Your task to perform on an android device: Search for lg ultragear on bestbuy, select the first entry, and add it to the cart. Image 0: 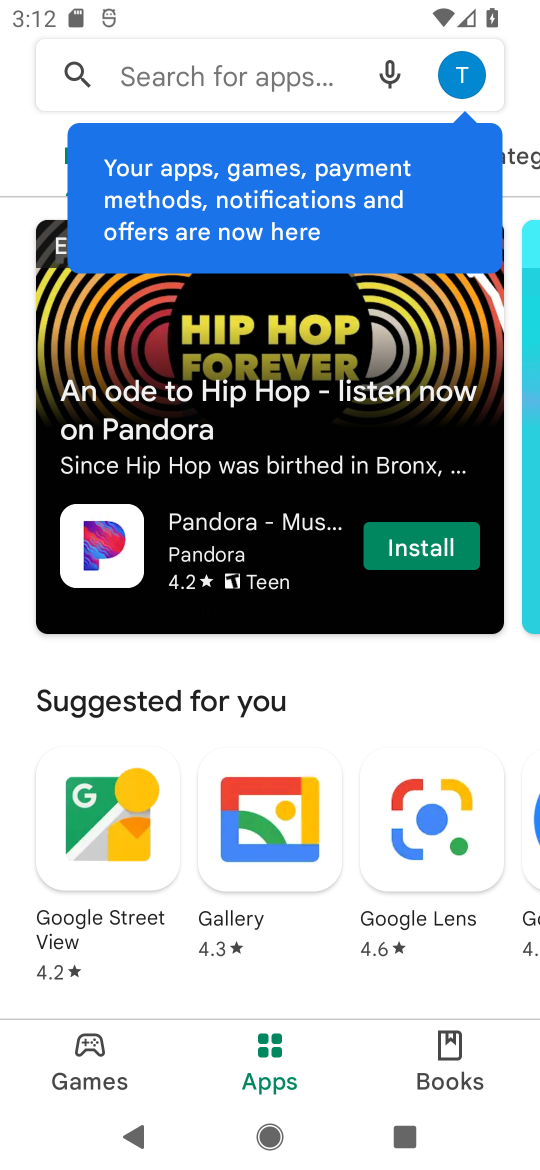
Step 0: press home button
Your task to perform on an android device: Search for lg ultragear on bestbuy, select the first entry, and add it to the cart. Image 1: 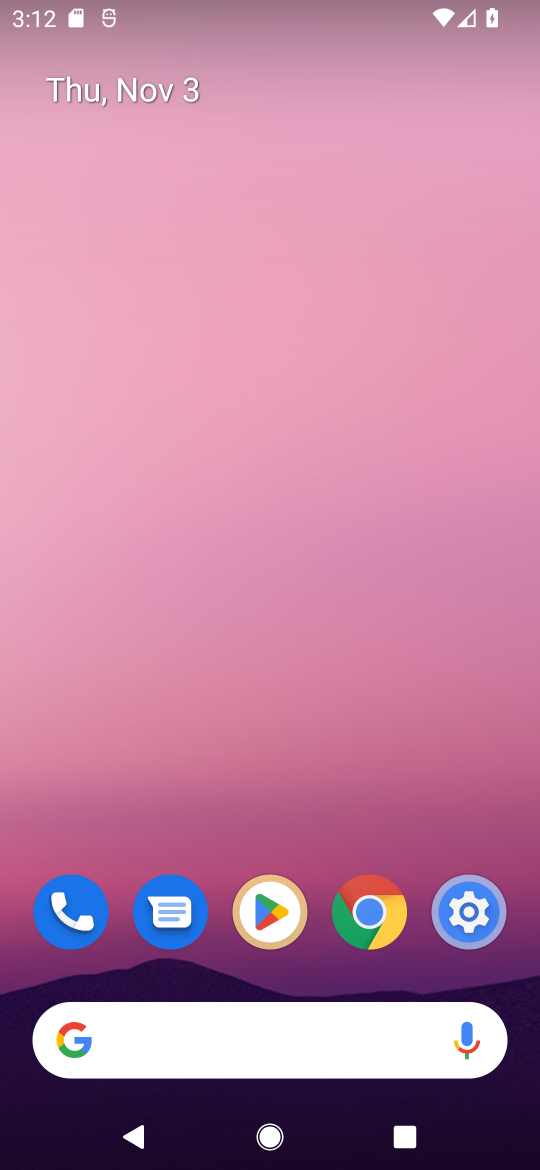
Step 1: click (367, 905)
Your task to perform on an android device: Search for lg ultragear on bestbuy, select the first entry, and add it to the cart. Image 2: 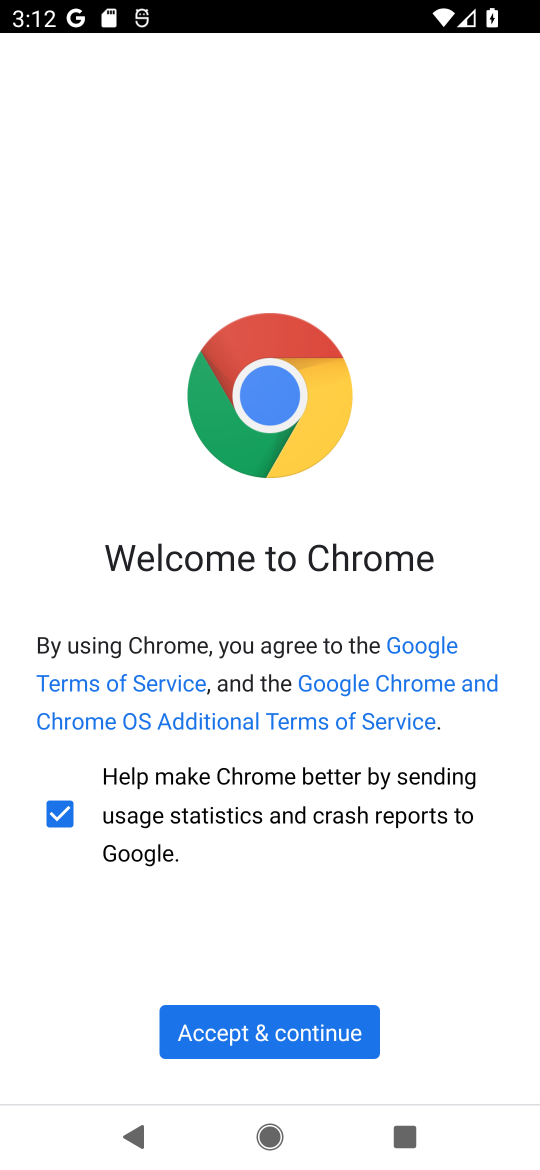
Step 2: click (273, 1028)
Your task to perform on an android device: Search for lg ultragear on bestbuy, select the first entry, and add it to the cart. Image 3: 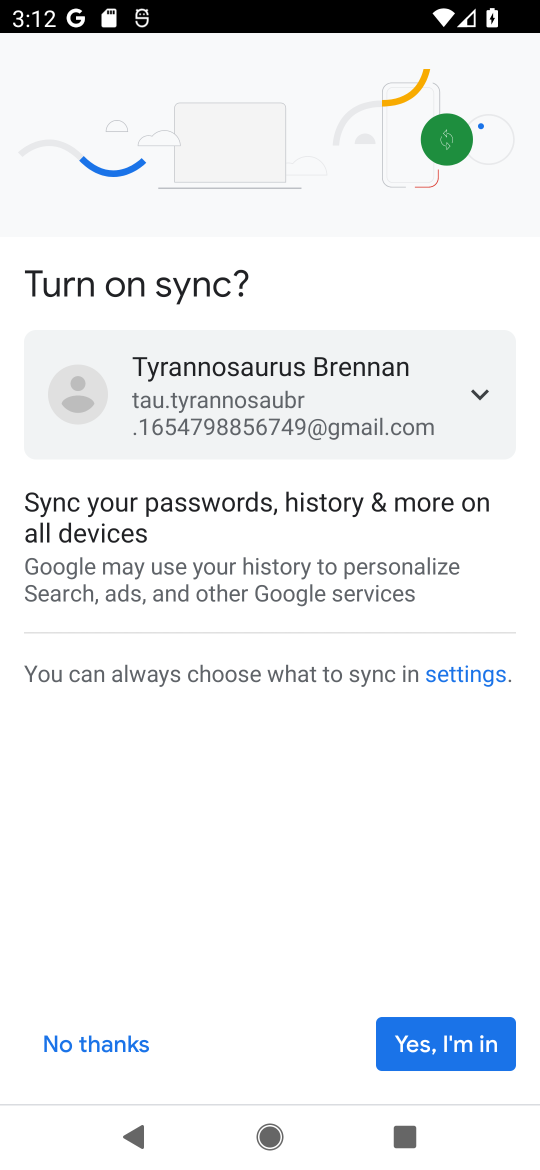
Step 3: click (106, 1046)
Your task to perform on an android device: Search for lg ultragear on bestbuy, select the first entry, and add it to the cart. Image 4: 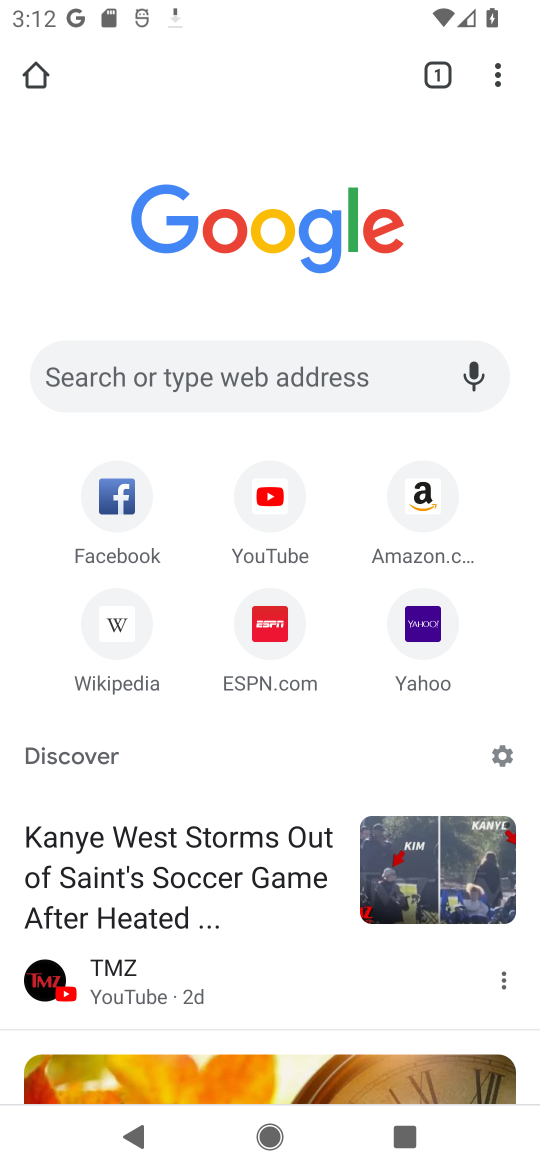
Step 4: click (238, 368)
Your task to perform on an android device: Search for lg ultragear on bestbuy, select the first entry, and add it to the cart. Image 5: 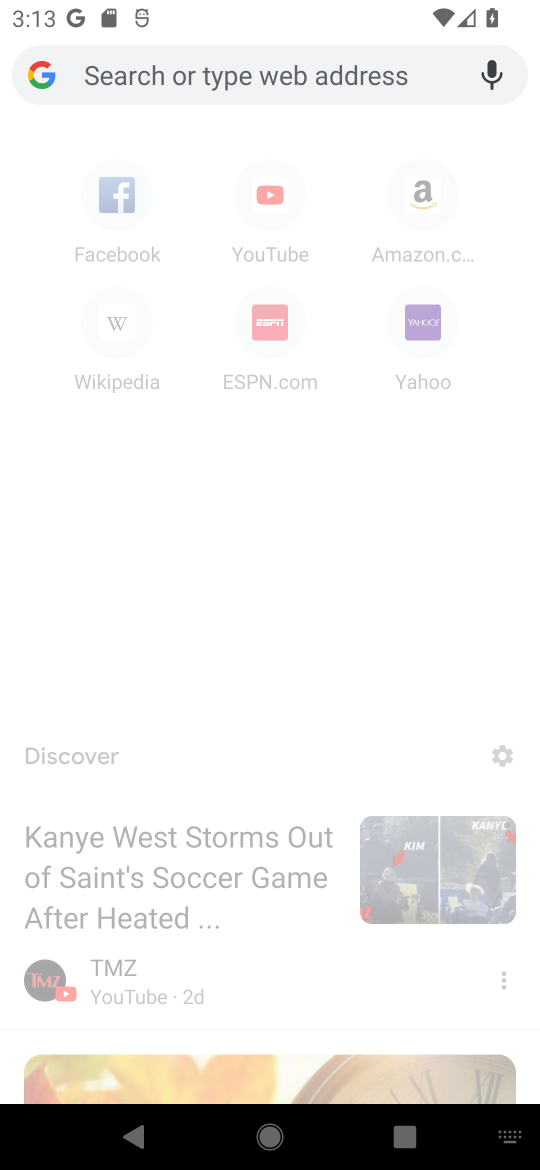
Step 5: type "bestbuy"
Your task to perform on an android device: Search for lg ultragear on bestbuy, select the first entry, and add it to the cart. Image 6: 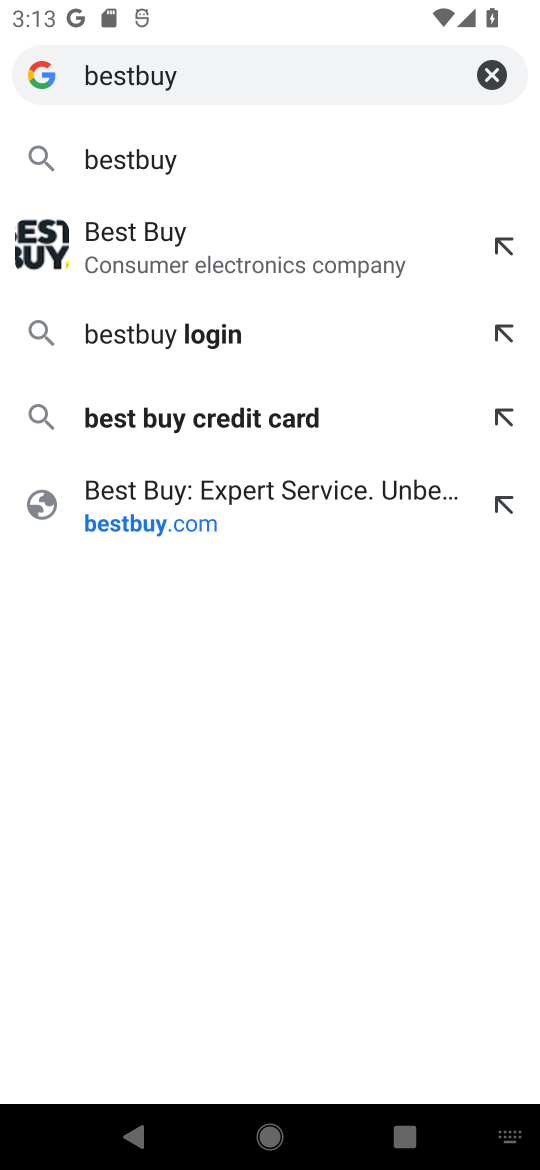
Step 6: click (167, 165)
Your task to perform on an android device: Search for lg ultragear on bestbuy, select the first entry, and add it to the cart. Image 7: 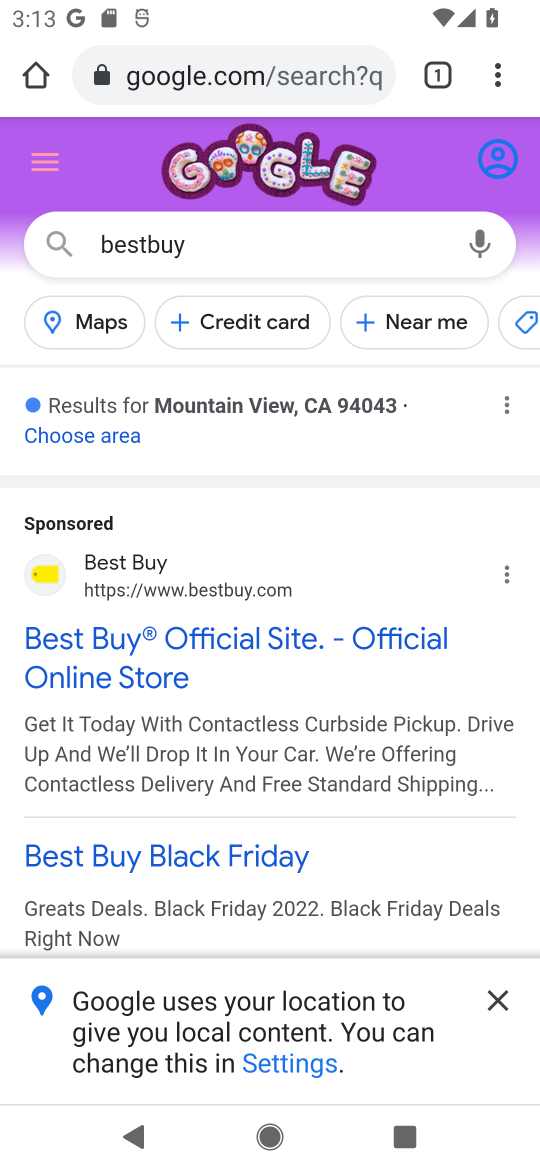
Step 7: click (498, 994)
Your task to perform on an android device: Search for lg ultragear on bestbuy, select the first entry, and add it to the cart. Image 8: 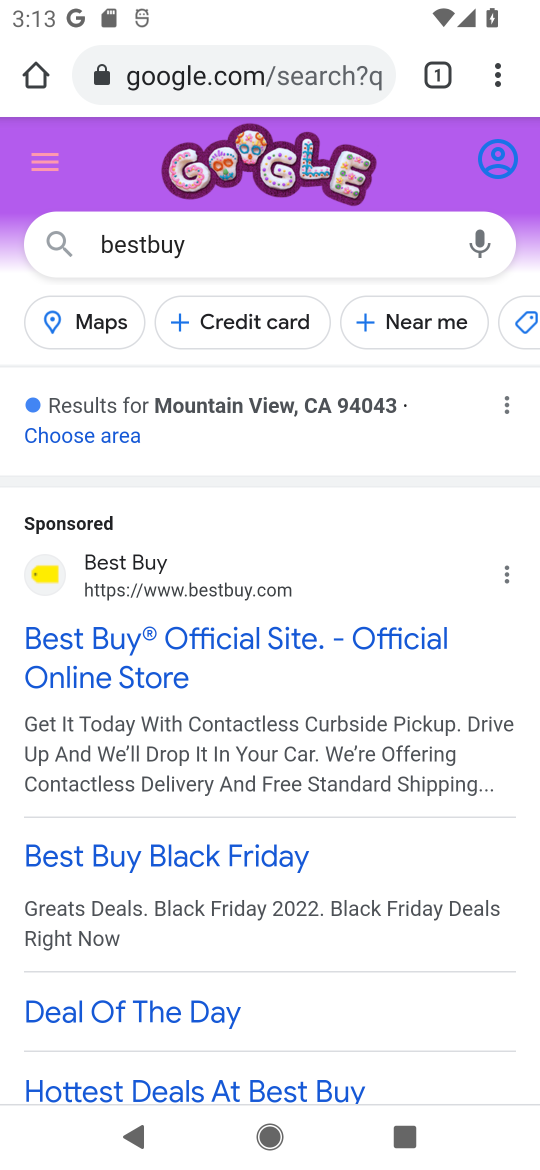
Step 8: click (183, 671)
Your task to perform on an android device: Search for lg ultragear on bestbuy, select the first entry, and add it to the cart. Image 9: 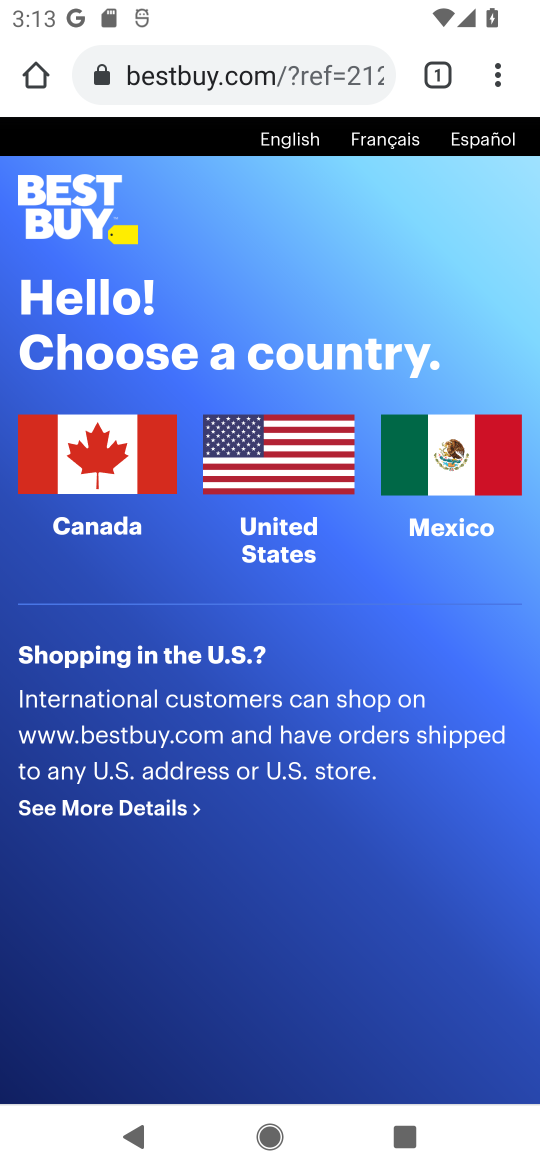
Step 9: click (245, 482)
Your task to perform on an android device: Search for lg ultragear on bestbuy, select the first entry, and add it to the cart. Image 10: 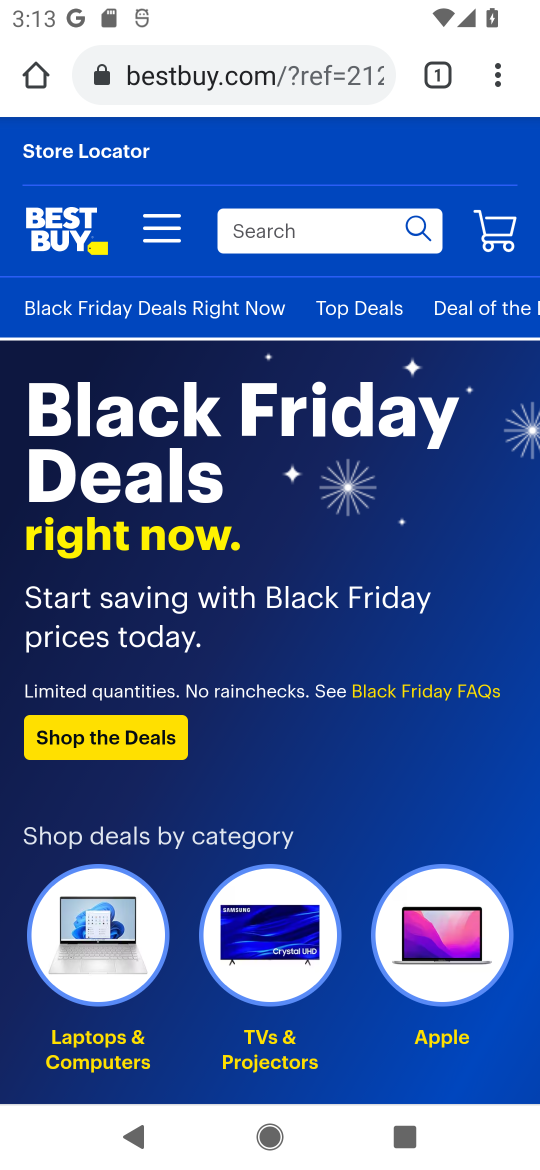
Step 10: click (291, 232)
Your task to perform on an android device: Search for lg ultragear on bestbuy, select the first entry, and add it to the cart. Image 11: 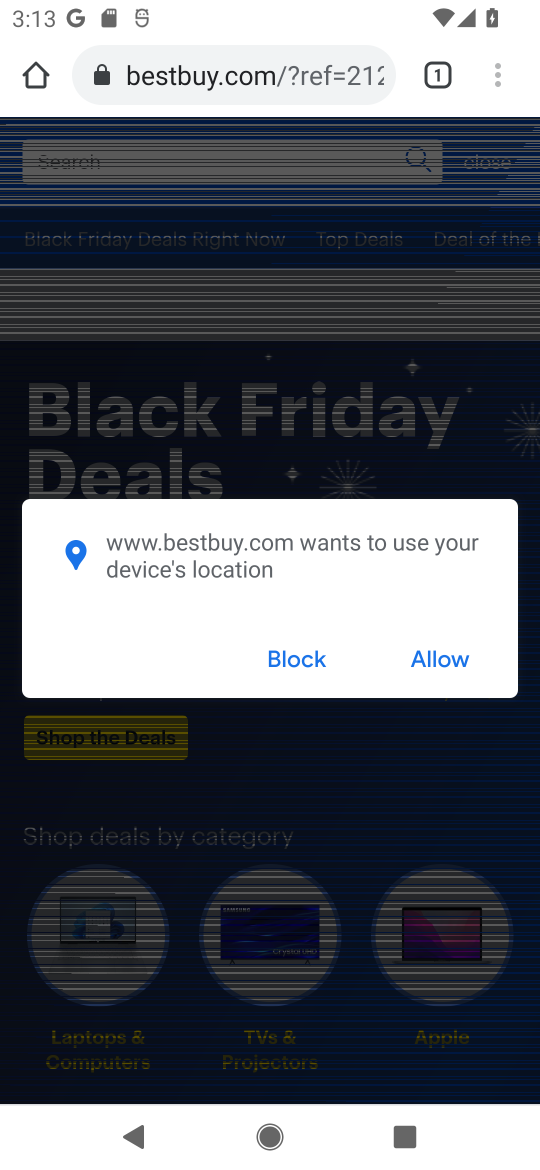
Step 11: click (440, 651)
Your task to perform on an android device: Search for lg ultragear on bestbuy, select the first entry, and add it to the cart. Image 12: 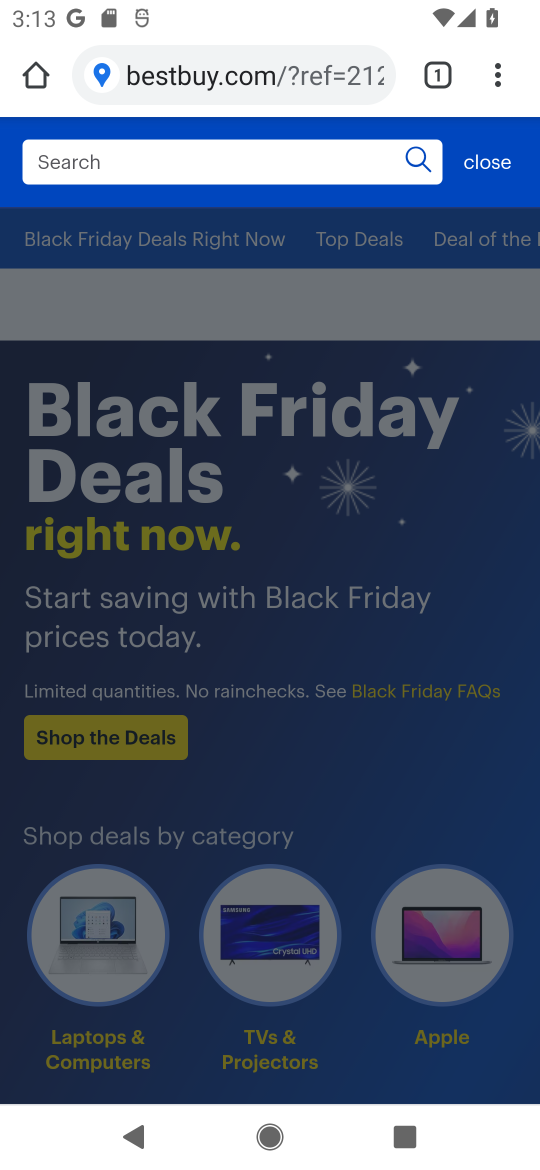
Step 12: click (255, 144)
Your task to perform on an android device: Search for lg ultragear on bestbuy, select the first entry, and add it to the cart. Image 13: 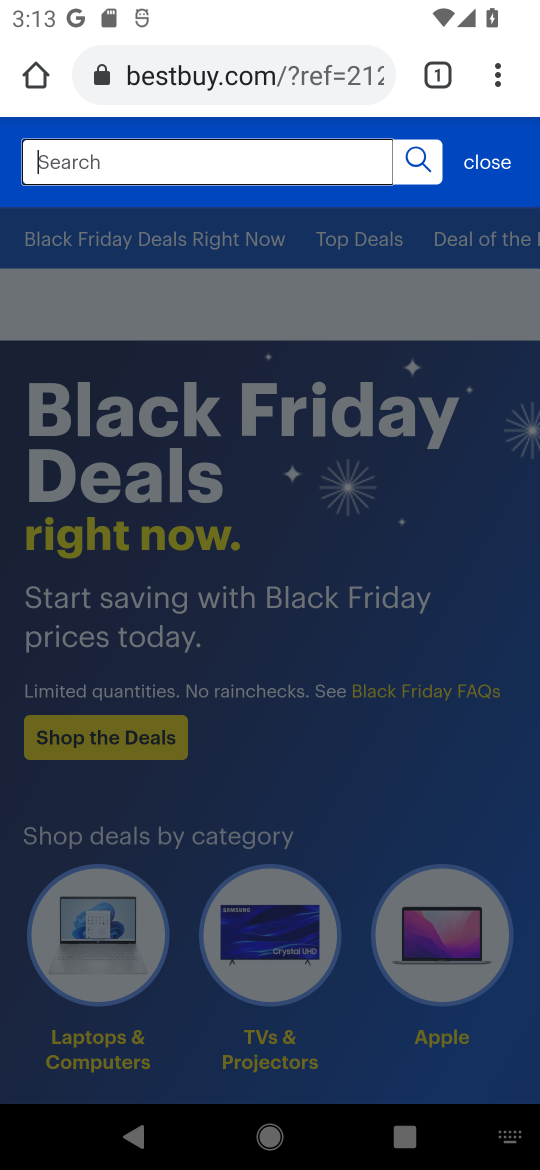
Step 13: type "lg ultragear"
Your task to perform on an android device: Search for lg ultragear on bestbuy, select the first entry, and add it to the cart. Image 14: 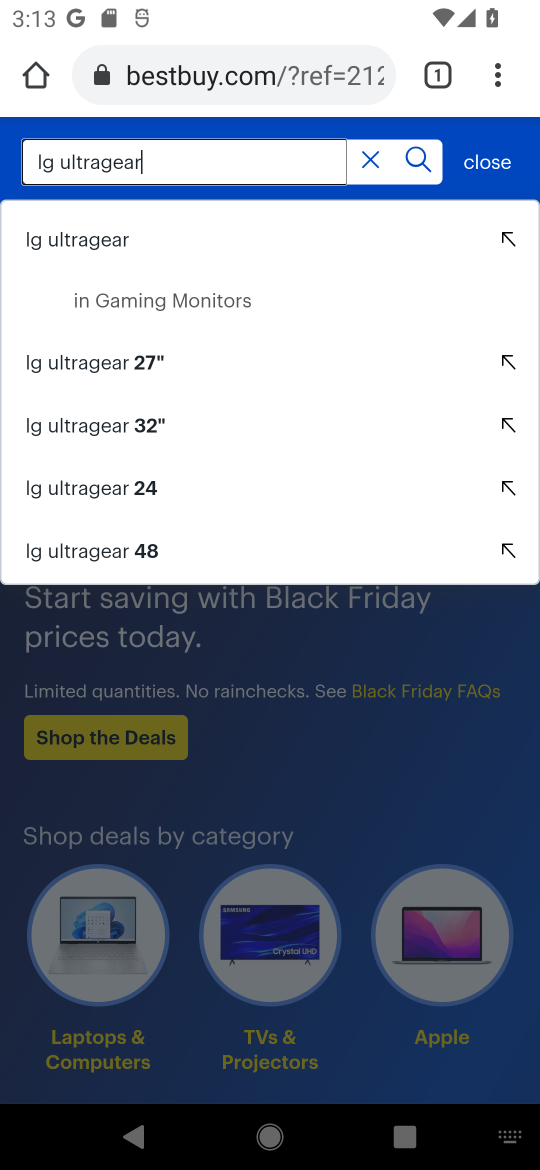
Step 14: click (114, 244)
Your task to perform on an android device: Search for lg ultragear on bestbuy, select the first entry, and add it to the cart. Image 15: 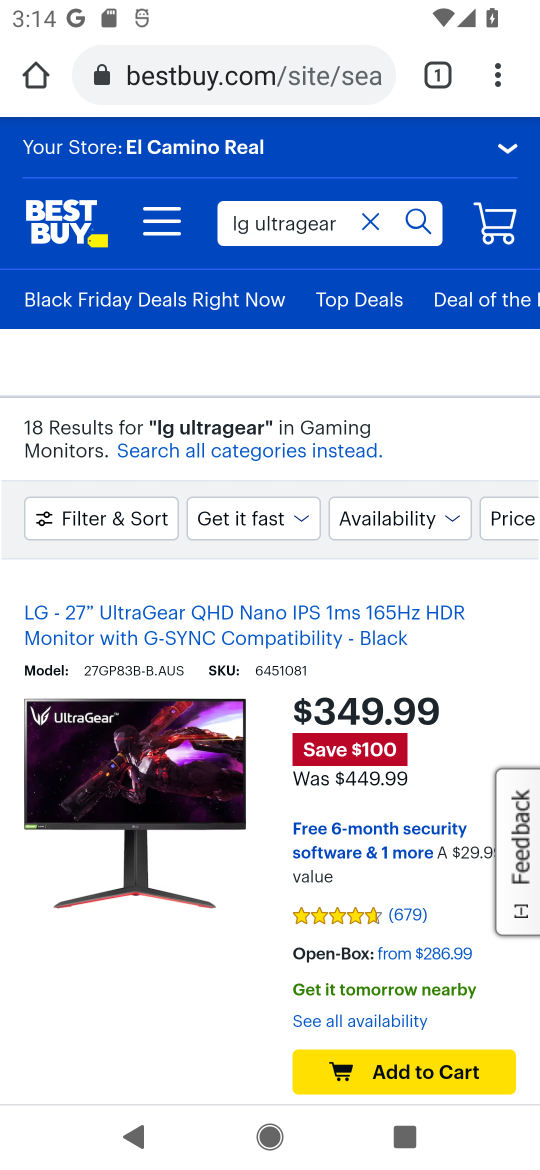
Step 15: click (417, 1069)
Your task to perform on an android device: Search for lg ultragear on bestbuy, select the first entry, and add it to the cart. Image 16: 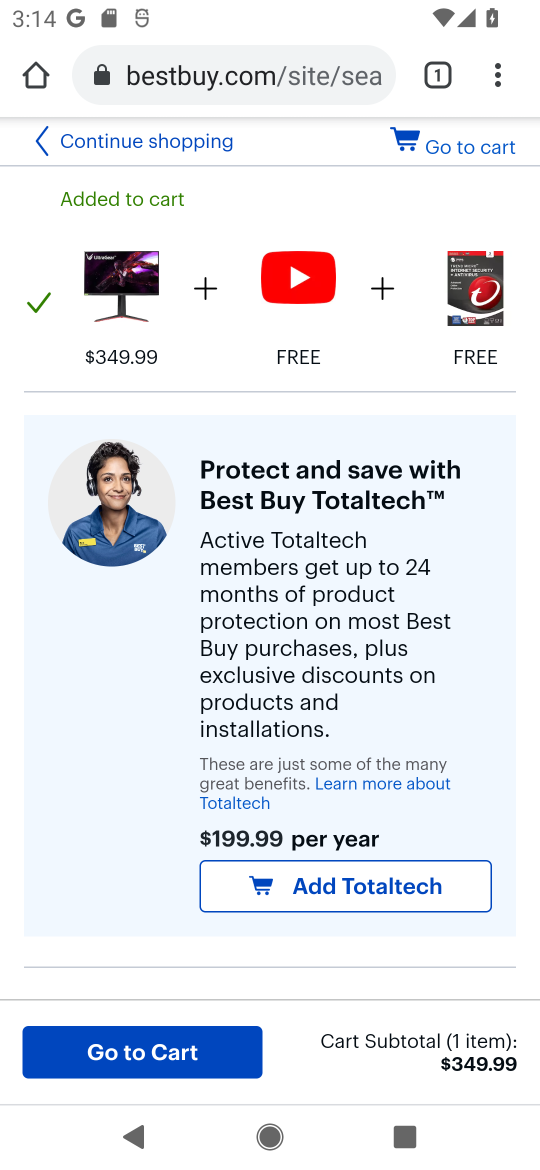
Step 16: task complete